Your task to perform on an android device: Open privacy settings Image 0: 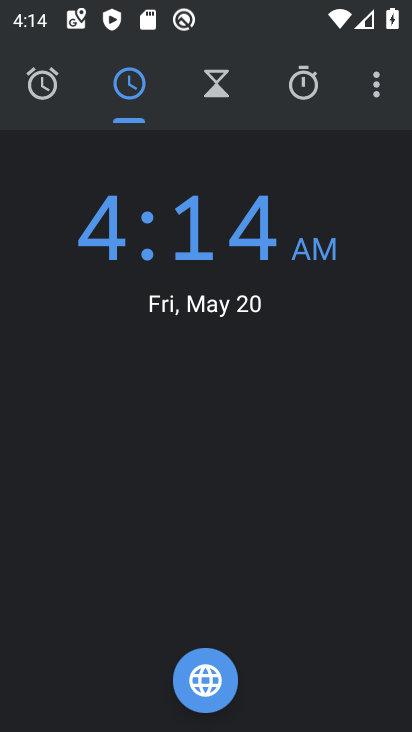
Step 0: press home button
Your task to perform on an android device: Open privacy settings Image 1: 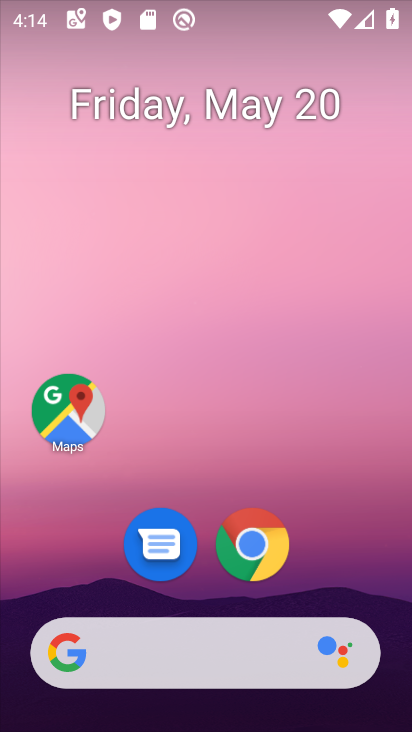
Step 1: drag from (358, 591) to (319, 20)
Your task to perform on an android device: Open privacy settings Image 2: 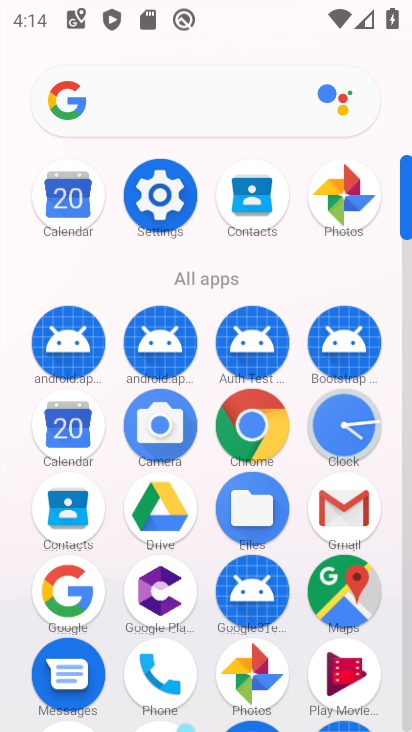
Step 2: click (160, 193)
Your task to perform on an android device: Open privacy settings Image 3: 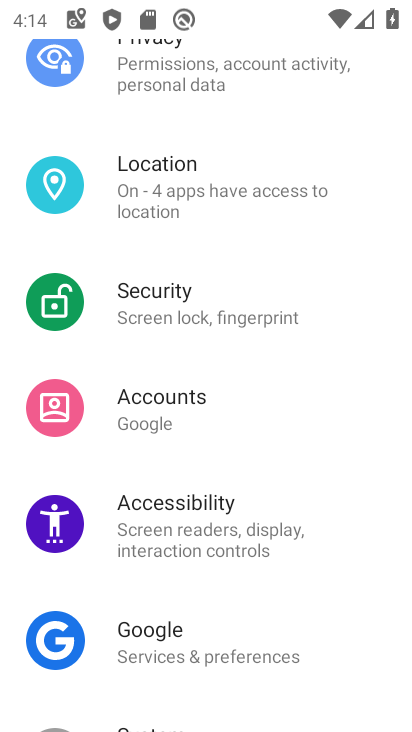
Step 3: drag from (340, 302) to (331, 499)
Your task to perform on an android device: Open privacy settings Image 4: 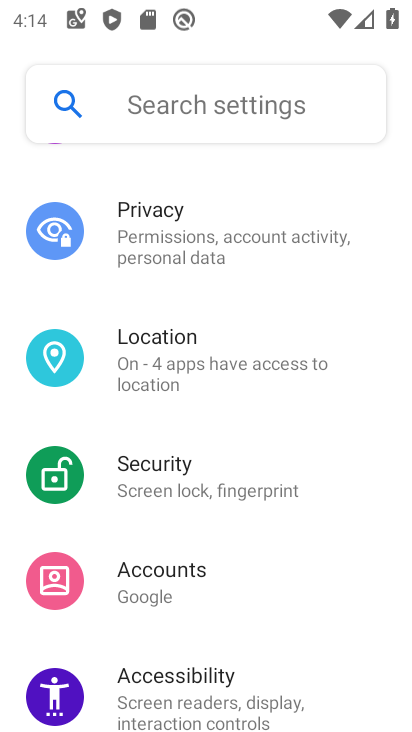
Step 4: click (144, 251)
Your task to perform on an android device: Open privacy settings Image 5: 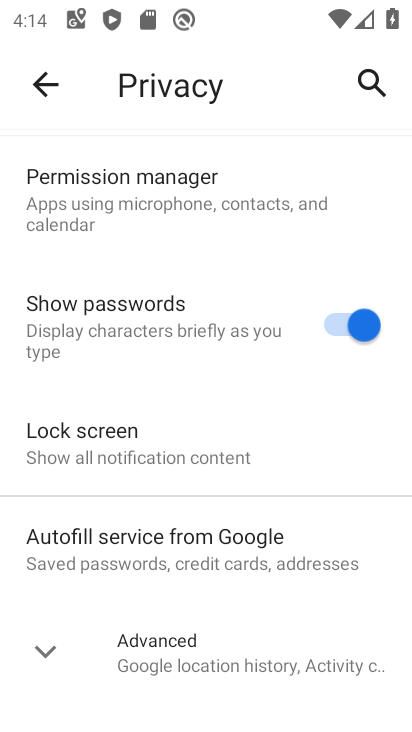
Step 5: task complete